Your task to perform on an android device: Go to accessibility settings Image 0: 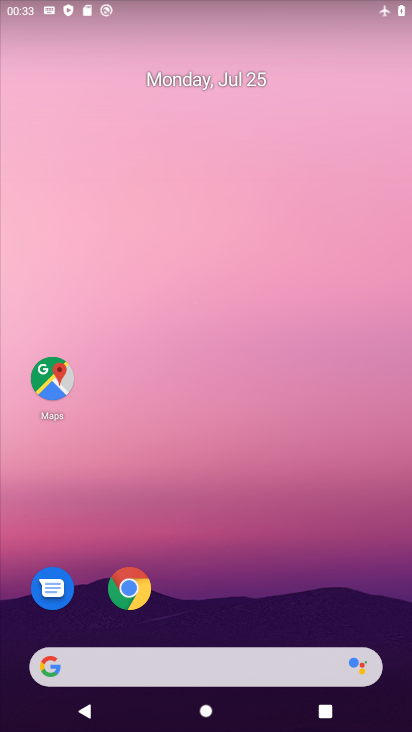
Step 0: drag from (276, 589) to (254, 0)
Your task to perform on an android device: Go to accessibility settings Image 1: 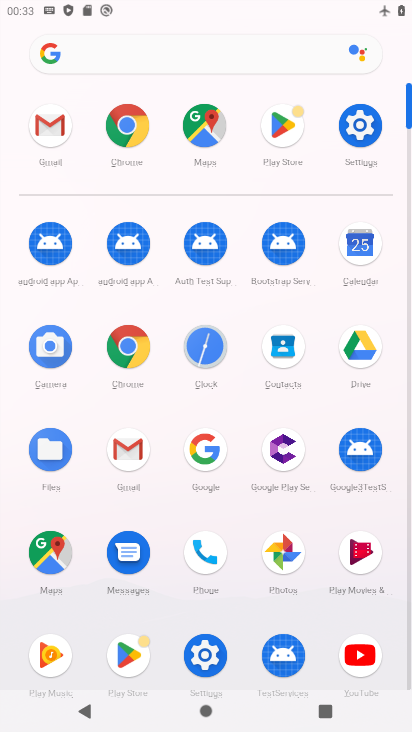
Step 1: click (205, 653)
Your task to perform on an android device: Go to accessibility settings Image 2: 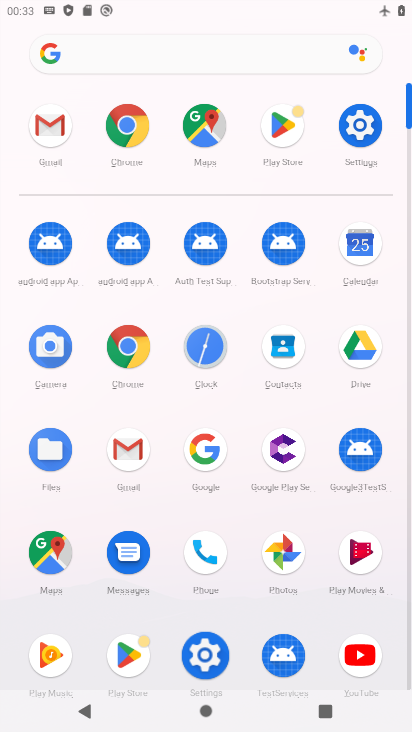
Step 2: click (199, 650)
Your task to perform on an android device: Go to accessibility settings Image 3: 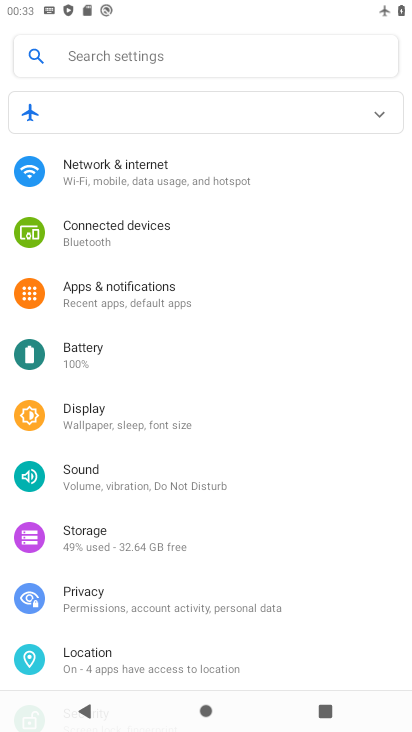
Step 3: click (199, 419)
Your task to perform on an android device: Go to accessibility settings Image 4: 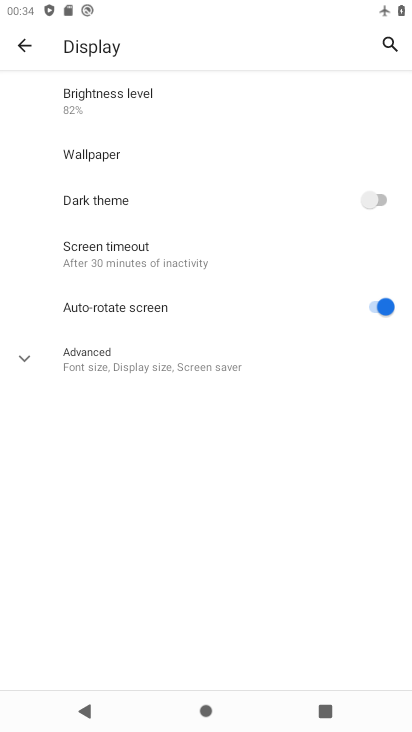
Step 4: click (26, 41)
Your task to perform on an android device: Go to accessibility settings Image 5: 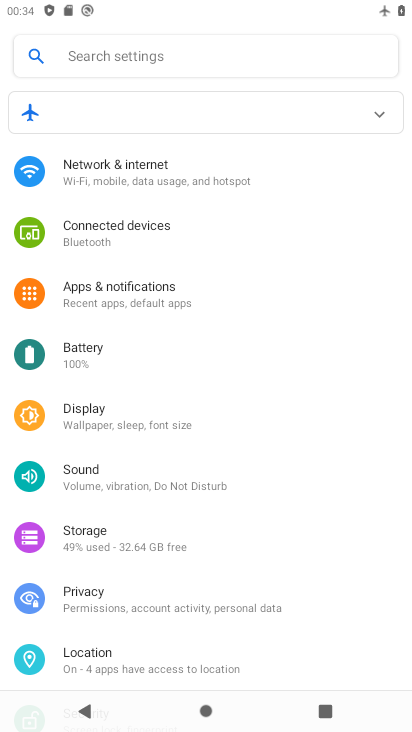
Step 5: drag from (212, 540) to (214, 263)
Your task to perform on an android device: Go to accessibility settings Image 6: 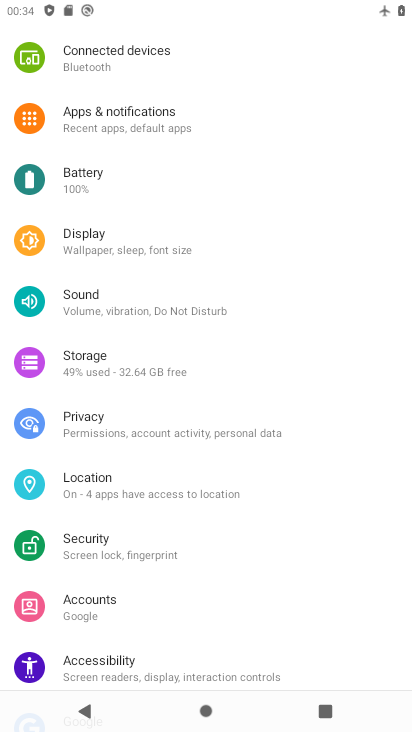
Step 6: drag from (177, 549) to (187, 369)
Your task to perform on an android device: Go to accessibility settings Image 7: 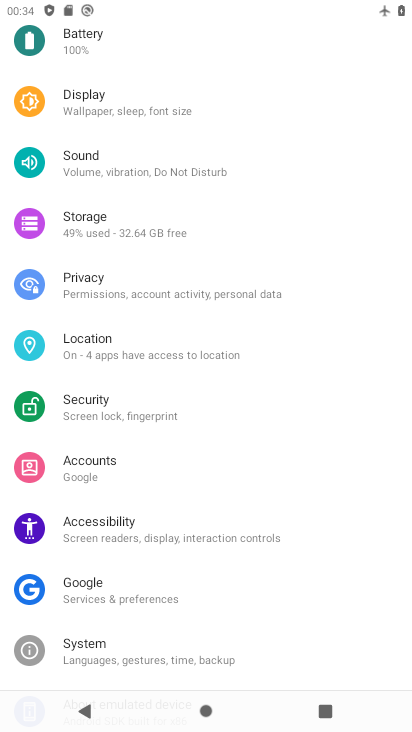
Step 7: click (139, 528)
Your task to perform on an android device: Go to accessibility settings Image 8: 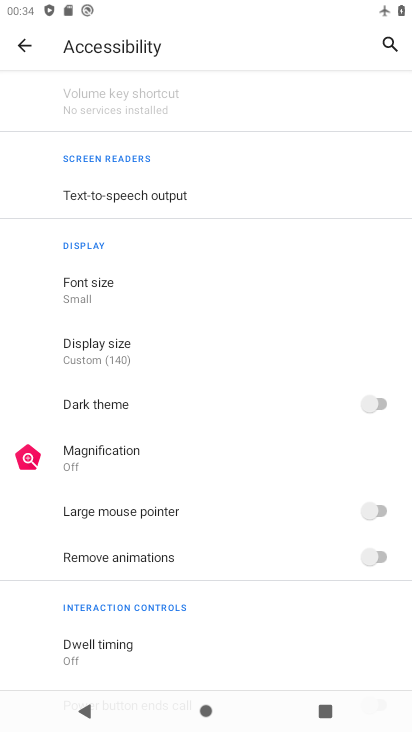
Step 8: task complete